Your task to perform on an android device: set default search engine in the chrome app Image 0: 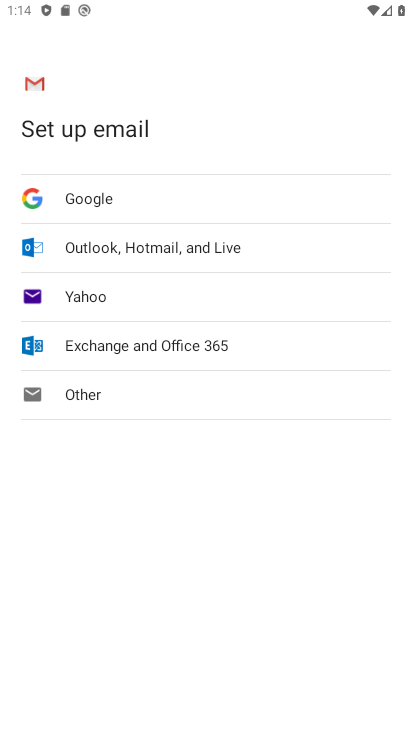
Step 0: press back button
Your task to perform on an android device: set default search engine in the chrome app Image 1: 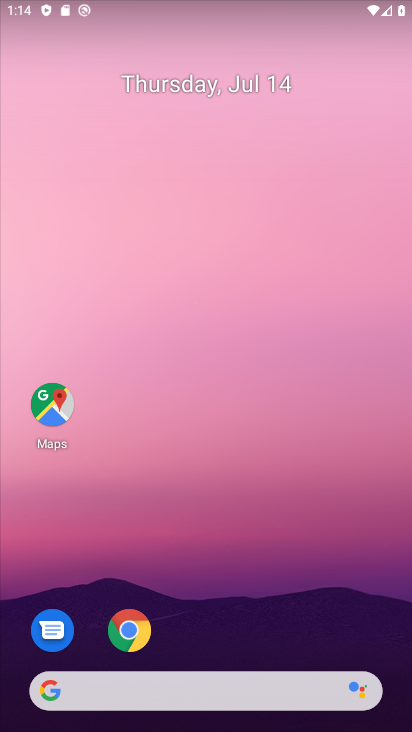
Step 1: drag from (240, 632) to (307, 127)
Your task to perform on an android device: set default search engine in the chrome app Image 2: 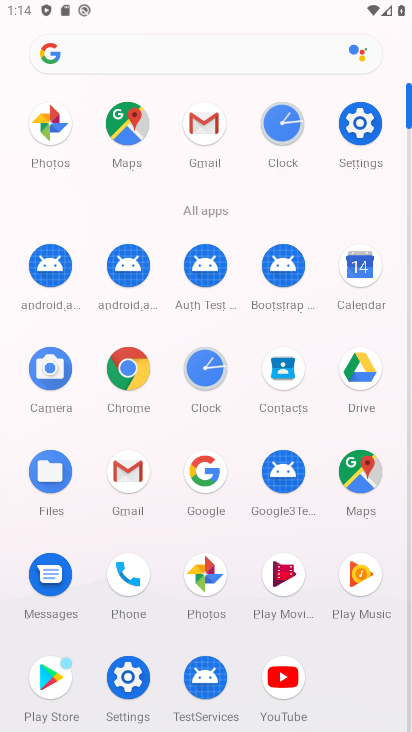
Step 2: click (135, 371)
Your task to perform on an android device: set default search engine in the chrome app Image 3: 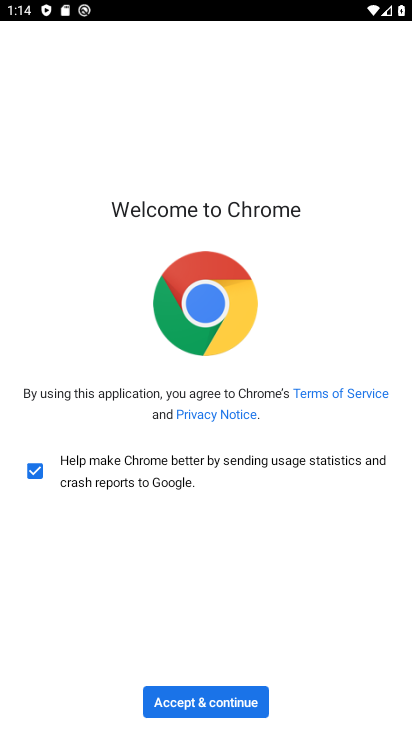
Step 3: click (188, 696)
Your task to perform on an android device: set default search engine in the chrome app Image 4: 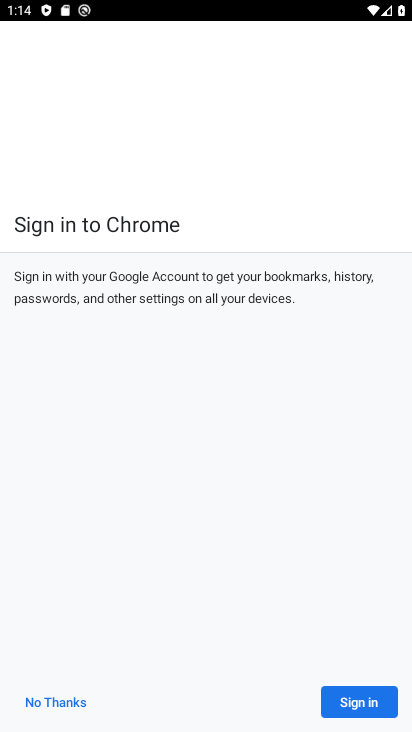
Step 4: click (370, 705)
Your task to perform on an android device: set default search engine in the chrome app Image 5: 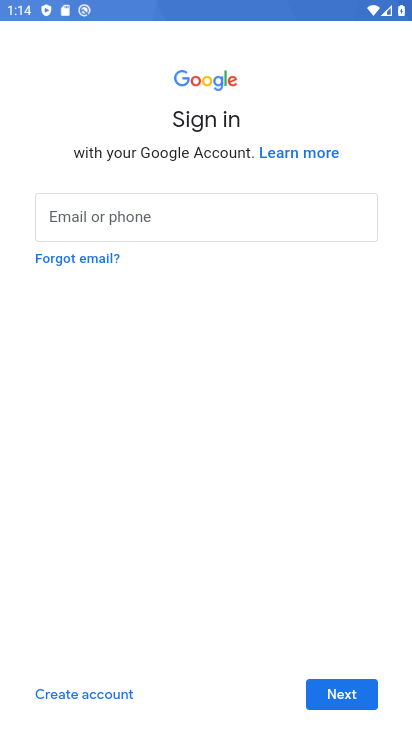
Step 5: press back button
Your task to perform on an android device: set default search engine in the chrome app Image 6: 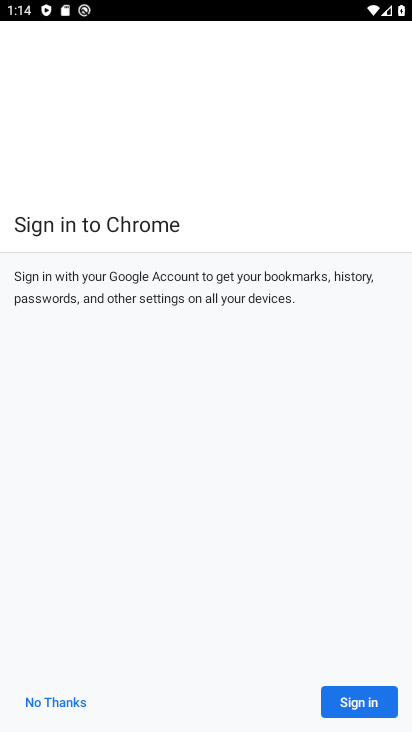
Step 6: press home button
Your task to perform on an android device: set default search engine in the chrome app Image 7: 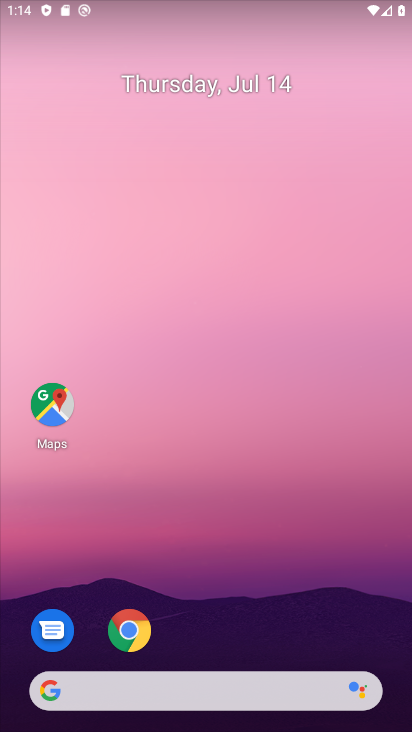
Step 7: drag from (219, 623) to (373, 6)
Your task to perform on an android device: set default search engine in the chrome app Image 8: 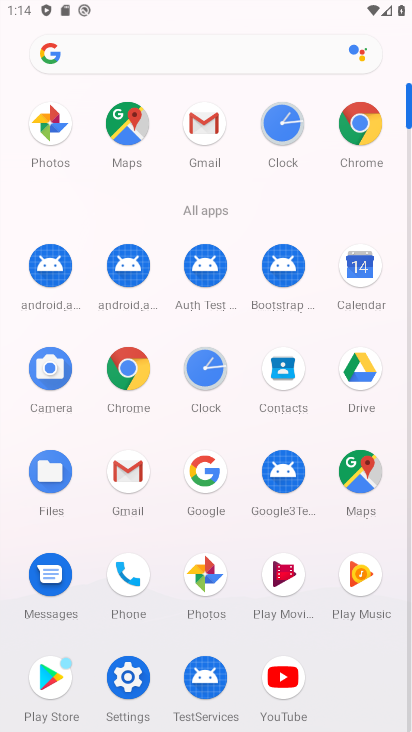
Step 8: click (365, 139)
Your task to perform on an android device: set default search engine in the chrome app Image 9: 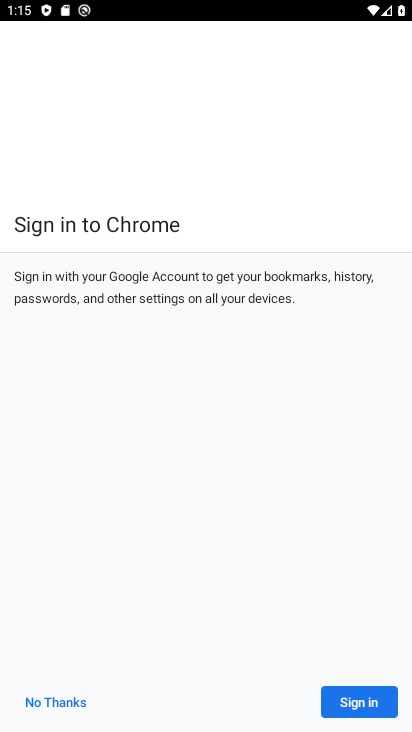
Step 9: click (359, 693)
Your task to perform on an android device: set default search engine in the chrome app Image 10: 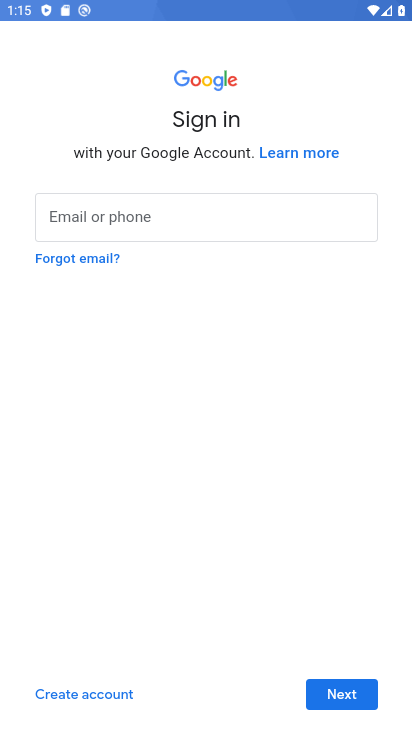
Step 10: task complete